Your task to perform on an android device: Go to battery settings Image 0: 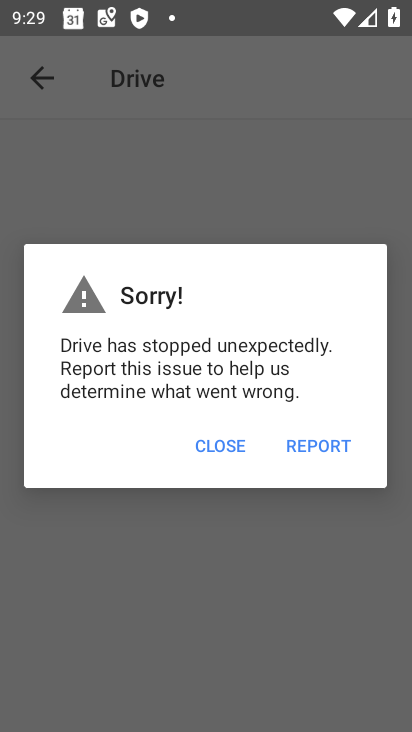
Step 0: press home button
Your task to perform on an android device: Go to battery settings Image 1: 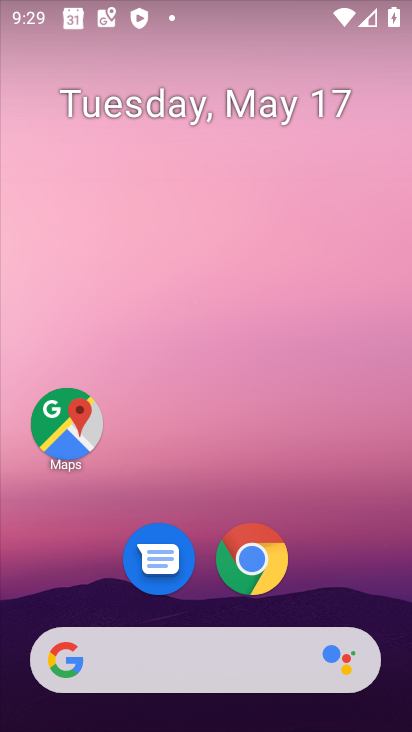
Step 1: drag from (237, 699) to (352, 18)
Your task to perform on an android device: Go to battery settings Image 2: 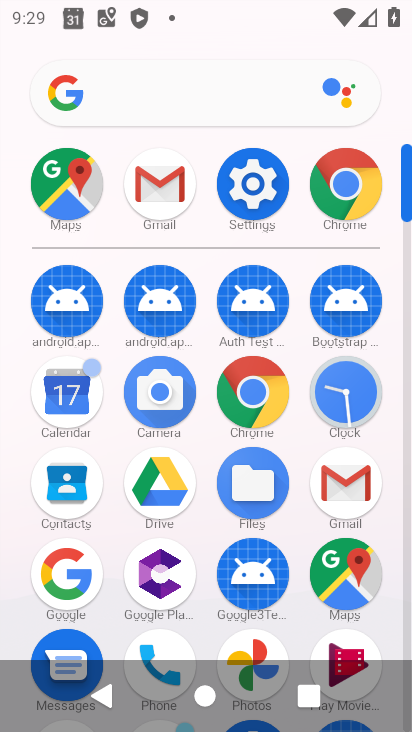
Step 2: click (260, 188)
Your task to perform on an android device: Go to battery settings Image 3: 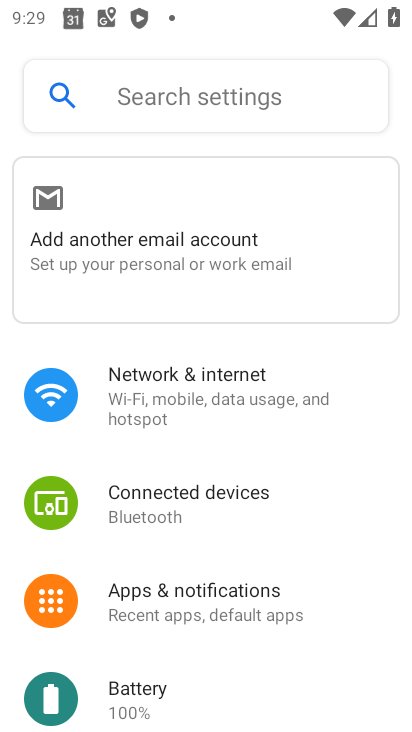
Step 3: drag from (288, 619) to (260, 205)
Your task to perform on an android device: Go to battery settings Image 4: 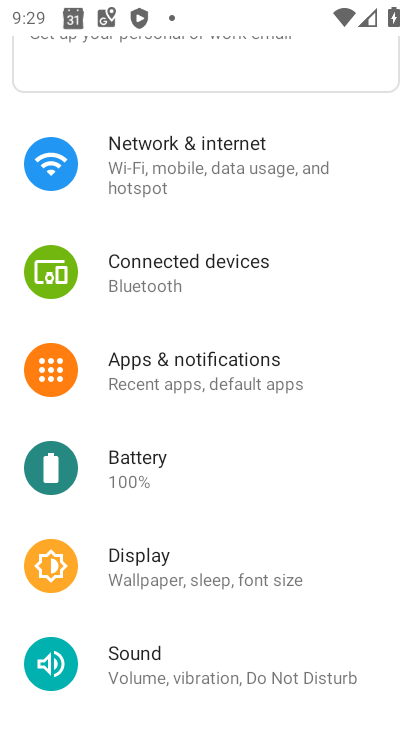
Step 4: click (142, 470)
Your task to perform on an android device: Go to battery settings Image 5: 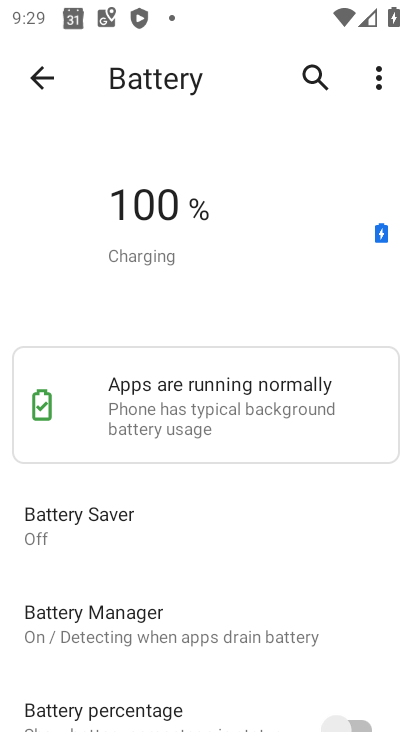
Step 5: task complete